Your task to perform on an android device: Open maps Image 0: 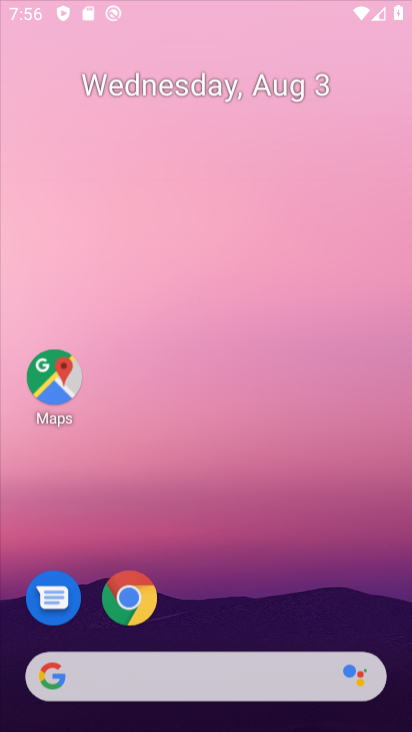
Step 0: drag from (208, 359) to (222, 48)
Your task to perform on an android device: Open maps Image 1: 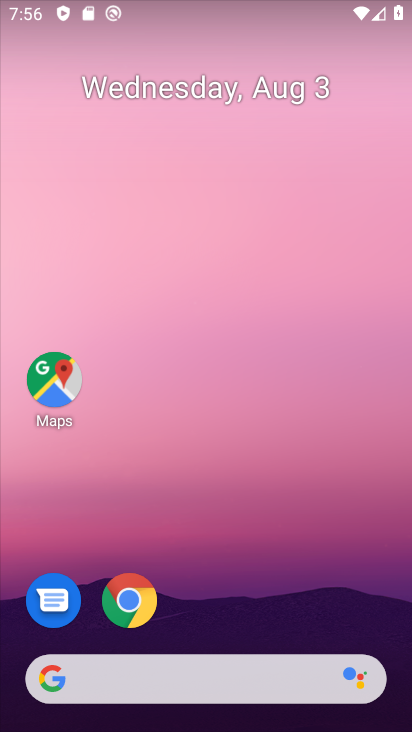
Step 1: drag from (205, 638) to (284, 18)
Your task to perform on an android device: Open maps Image 2: 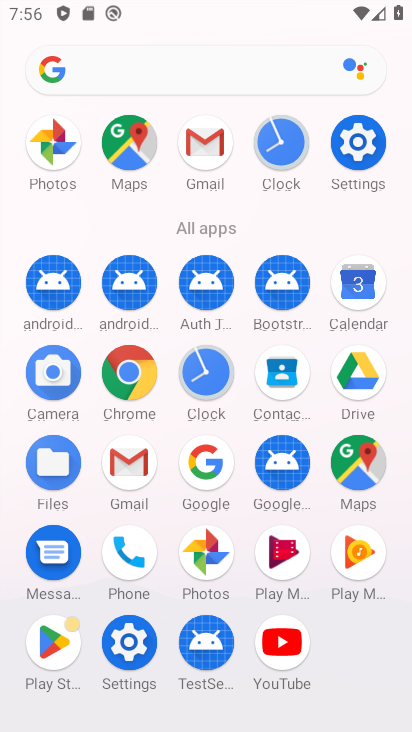
Step 2: click (359, 462)
Your task to perform on an android device: Open maps Image 3: 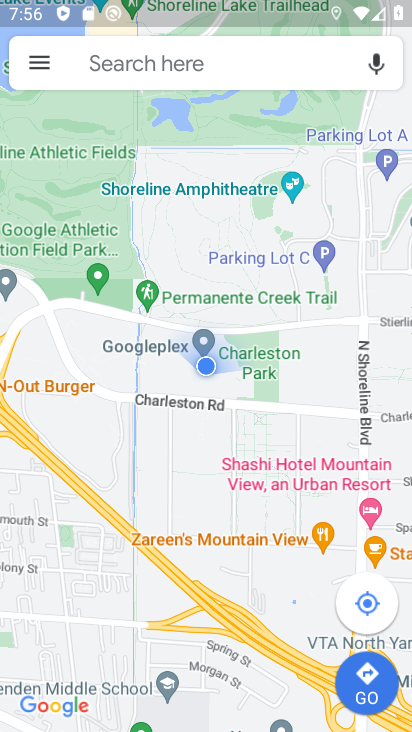
Step 3: task complete